Your task to perform on an android device: turn on wifi Image 0: 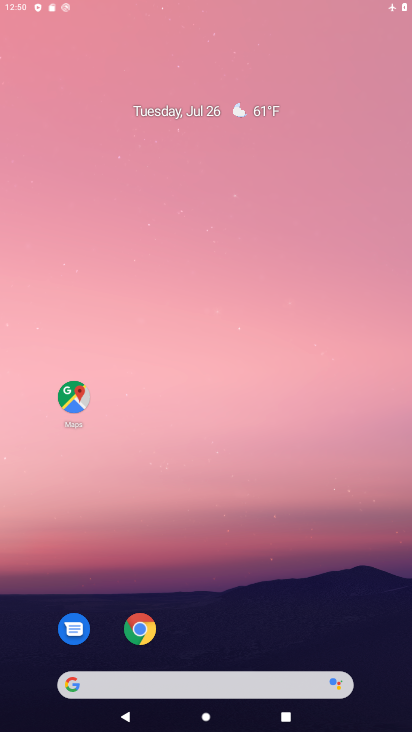
Step 0: click (229, 543)
Your task to perform on an android device: turn on wifi Image 1: 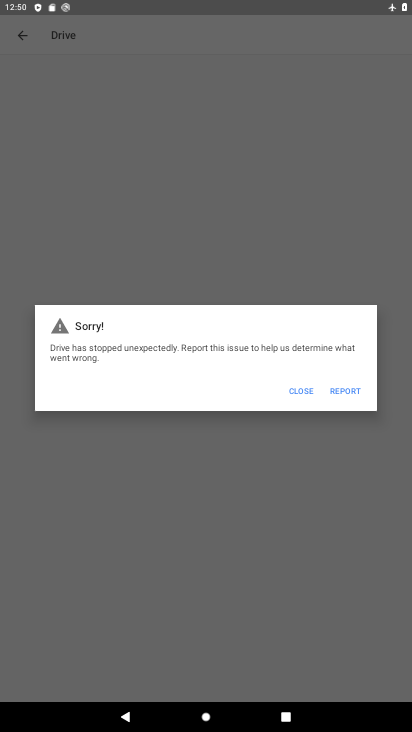
Step 1: press home button
Your task to perform on an android device: turn on wifi Image 2: 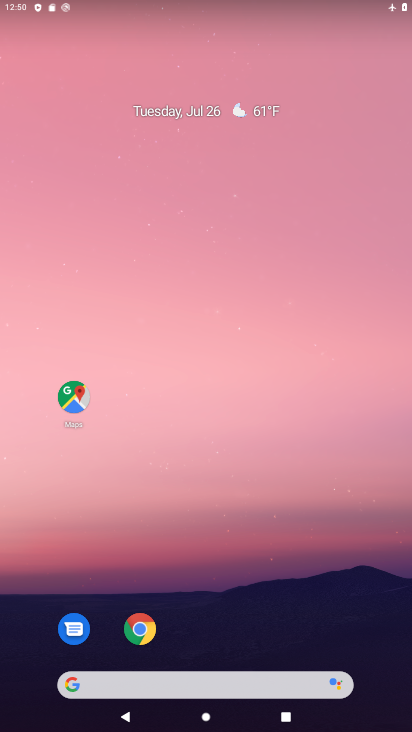
Step 2: drag from (233, 653) to (233, 106)
Your task to perform on an android device: turn on wifi Image 3: 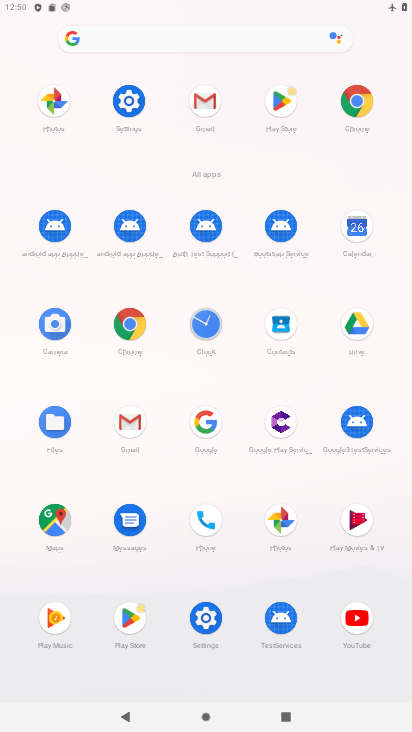
Step 3: click (129, 111)
Your task to perform on an android device: turn on wifi Image 4: 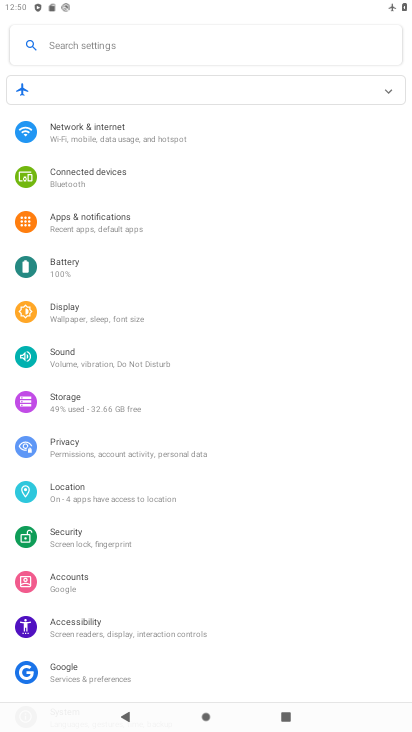
Step 4: click (109, 118)
Your task to perform on an android device: turn on wifi Image 5: 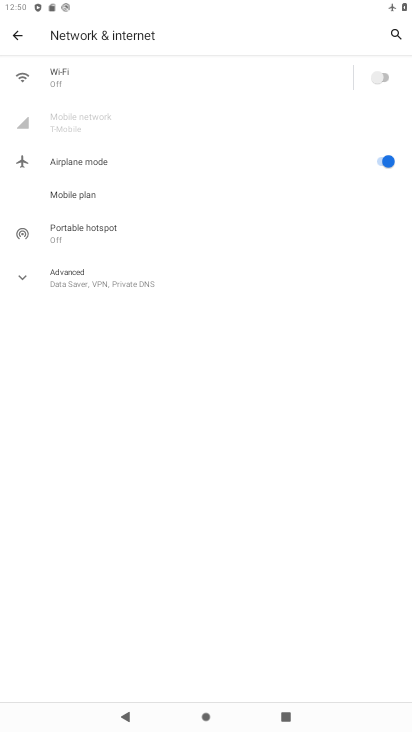
Step 5: click (384, 75)
Your task to perform on an android device: turn on wifi Image 6: 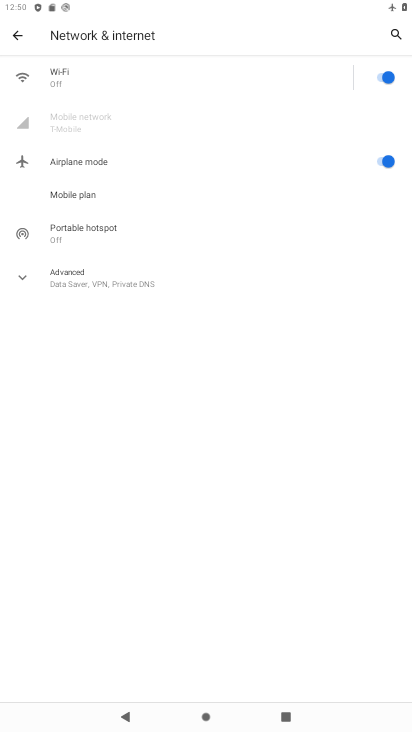
Step 6: task complete